Your task to perform on an android device: turn on wifi Image 0: 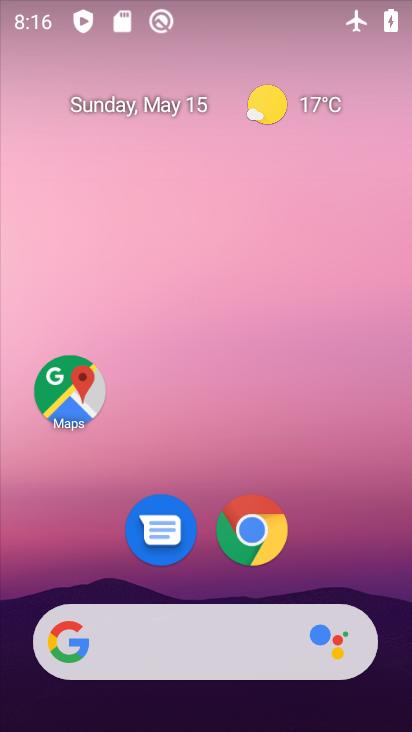
Step 0: drag from (234, 715) to (225, 144)
Your task to perform on an android device: turn on wifi Image 1: 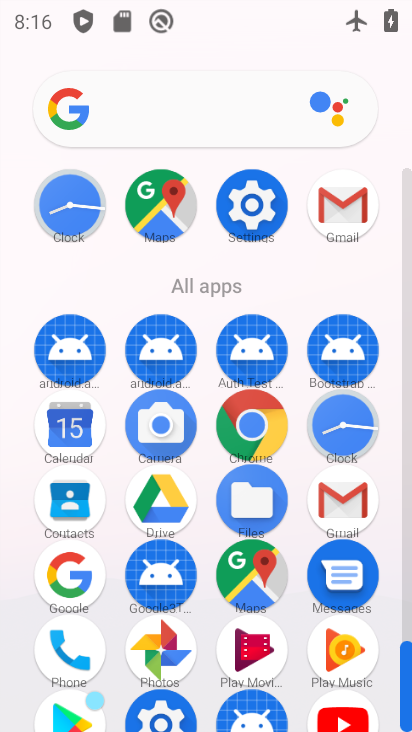
Step 1: click (254, 199)
Your task to perform on an android device: turn on wifi Image 2: 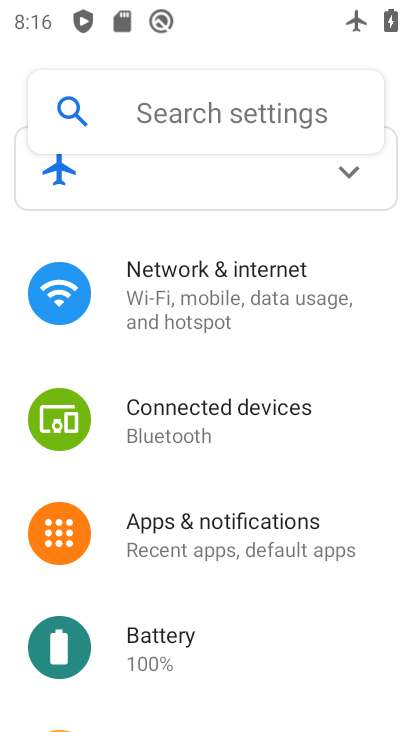
Step 2: click (169, 295)
Your task to perform on an android device: turn on wifi Image 3: 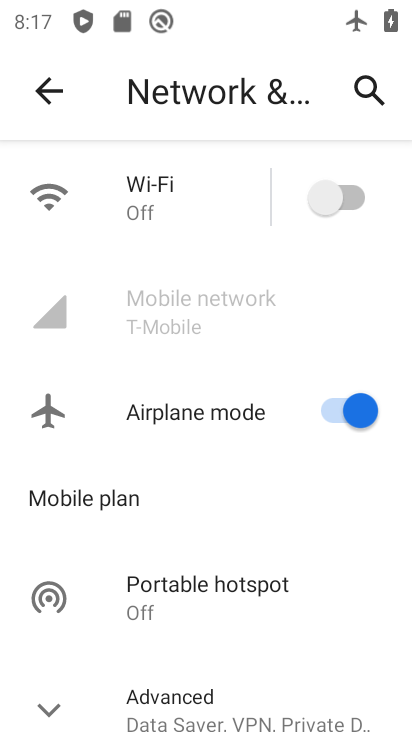
Step 3: click (352, 199)
Your task to perform on an android device: turn on wifi Image 4: 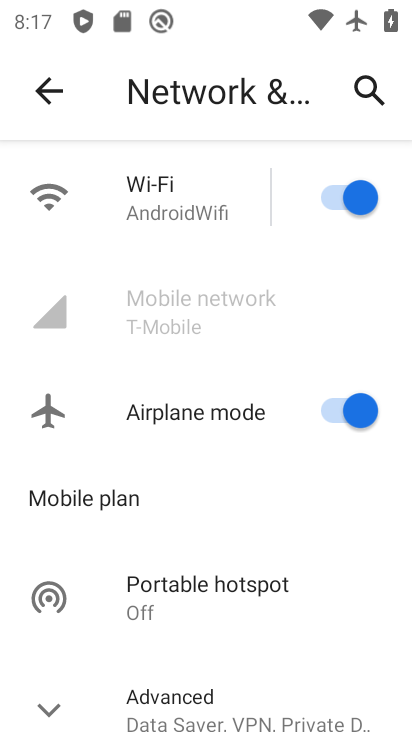
Step 4: task complete